Your task to perform on an android device: Turn on the flashlight Image 0: 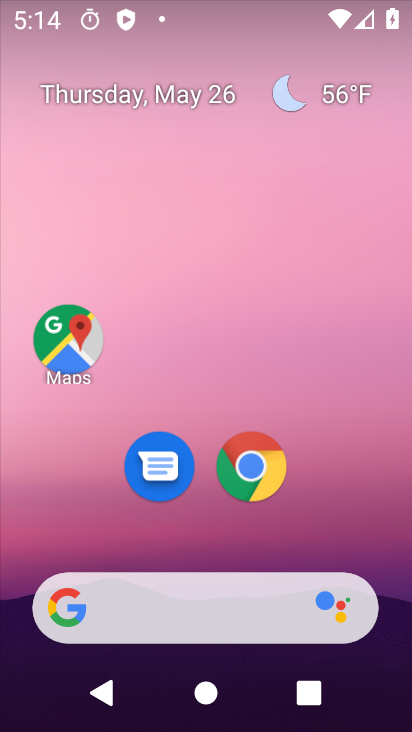
Step 0: drag from (297, 4) to (290, 311)
Your task to perform on an android device: Turn on the flashlight Image 1: 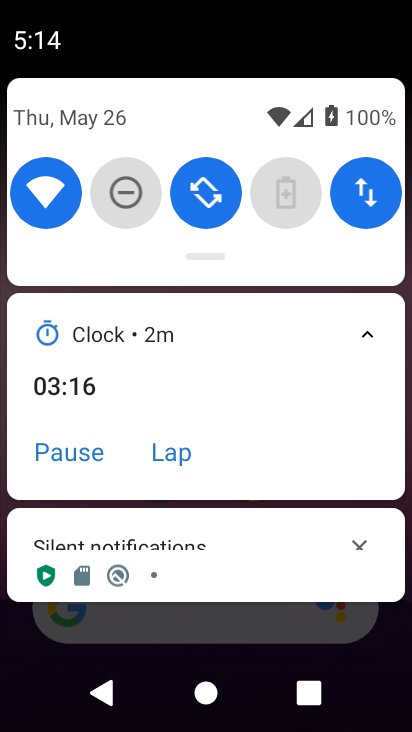
Step 1: task complete